Your task to perform on an android device: Turn on the flashlight Image 0: 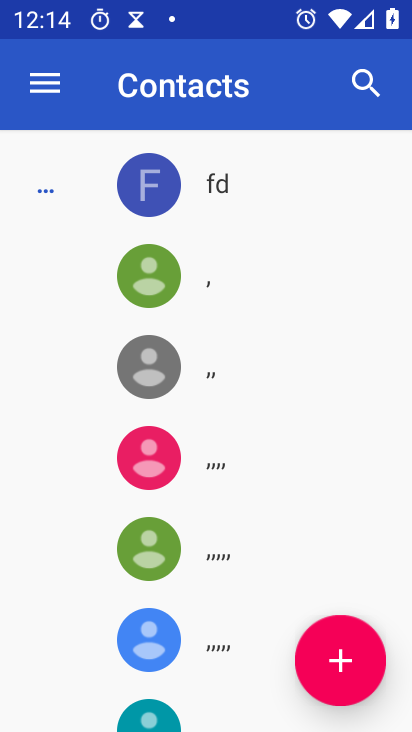
Step 0: press home button
Your task to perform on an android device: Turn on the flashlight Image 1: 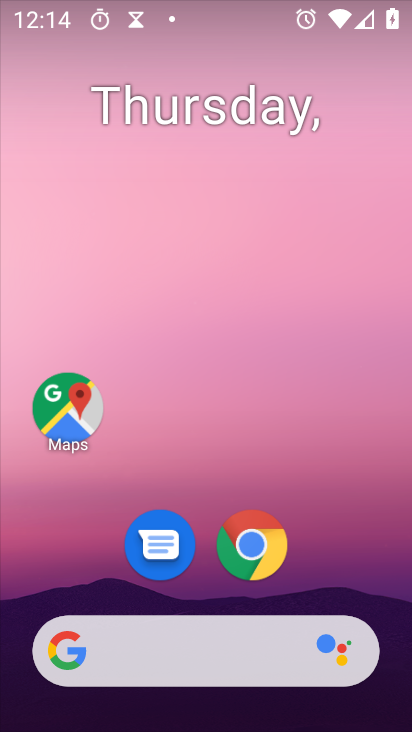
Step 1: task complete